Your task to perform on an android device: What's the weather today? Image 0: 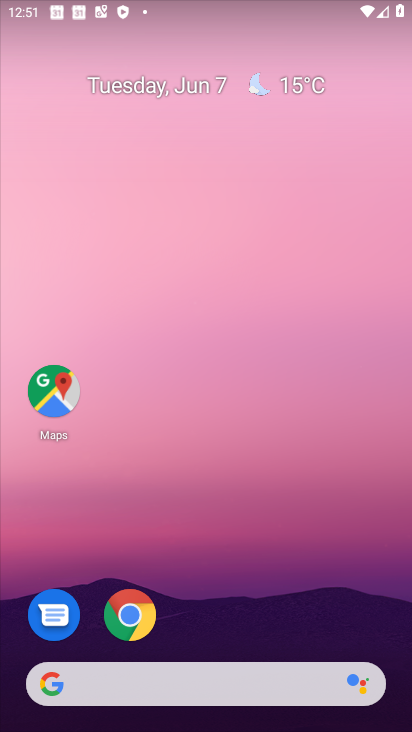
Step 0: drag from (200, 646) to (202, 234)
Your task to perform on an android device: What's the weather today? Image 1: 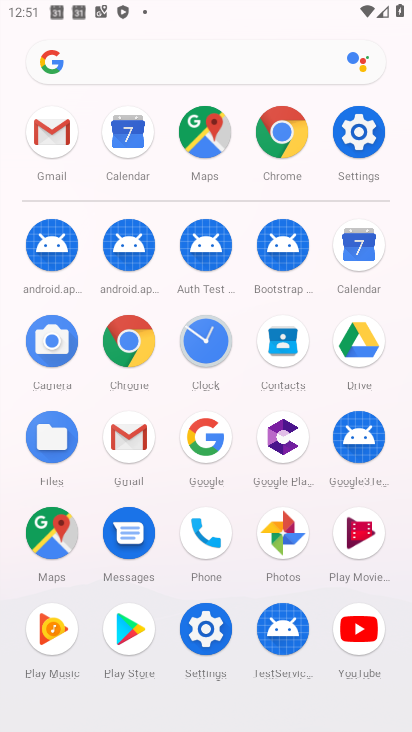
Step 1: click (211, 452)
Your task to perform on an android device: What's the weather today? Image 2: 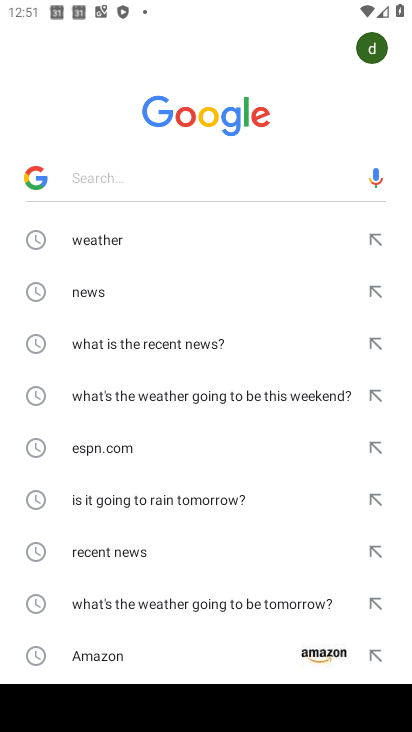
Step 2: click (108, 241)
Your task to perform on an android device: What's the weather today? Image 3: 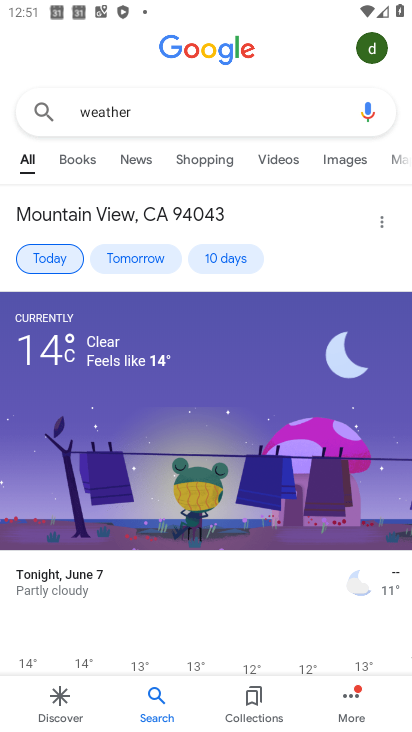
Step 3: task complete